Your task to perform on an android device: turn off notifications in google photos Image 0: 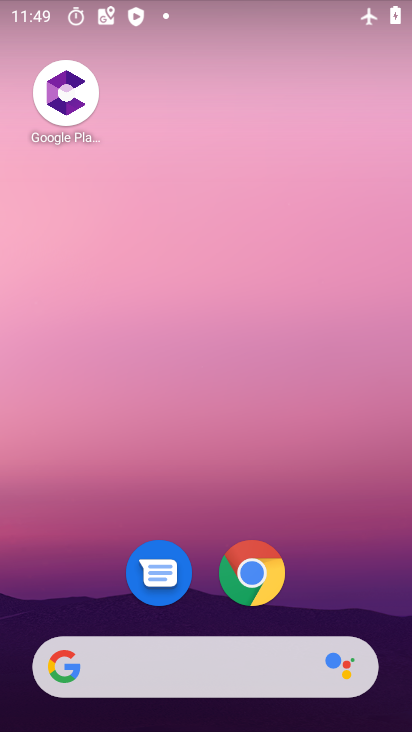
Step 0: drag from (271, 707) to (282, 172)
Your task to perform on an android device: turn off notifications in google photos Image 1: 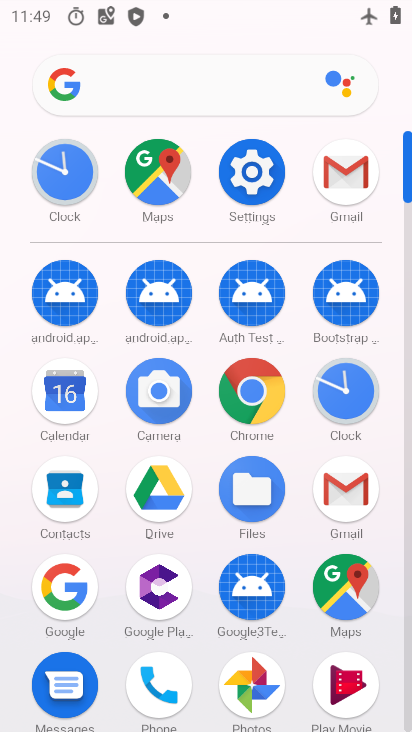
Step 1: click (250, 651)
Your task to perform on an android device: turn off notifications in google photos Image 2: 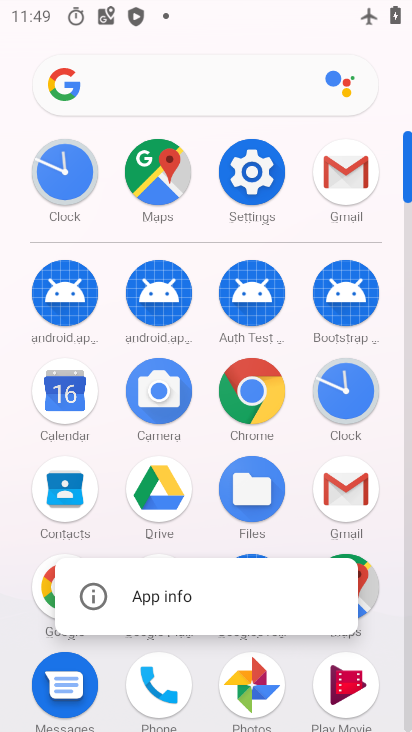
Step 2: click (199, 598)
Your task to perform on an android device: turn off notifications in google photos Image 3: 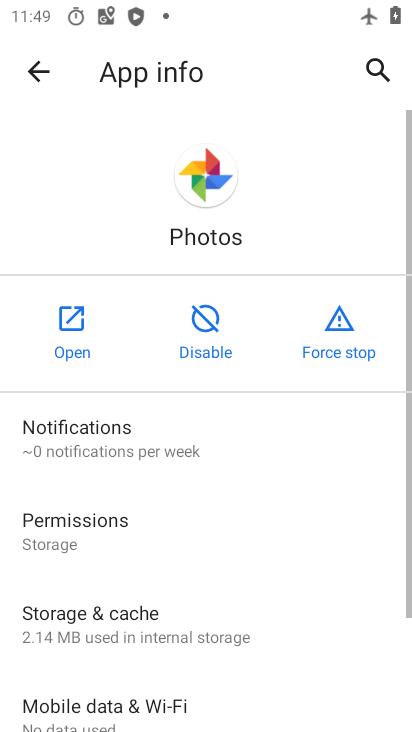
Step 3: click (149, 440)
Your task to perform on an android device: turn off notifications in google photos Image 4: 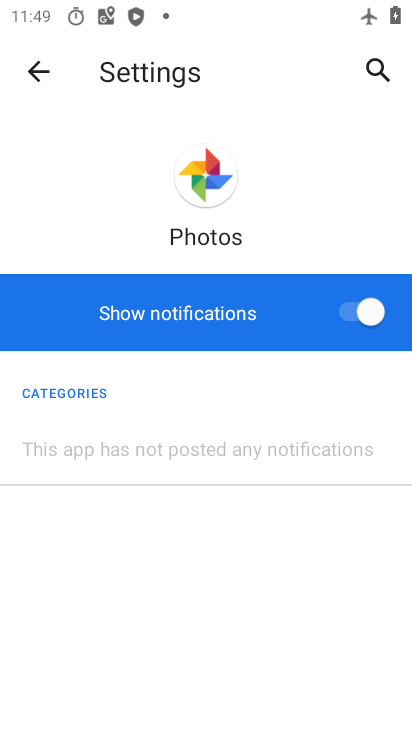
Step 4: click (361, 320)
Your task to perform on an android device: turn off notifications in google photos Image 5: 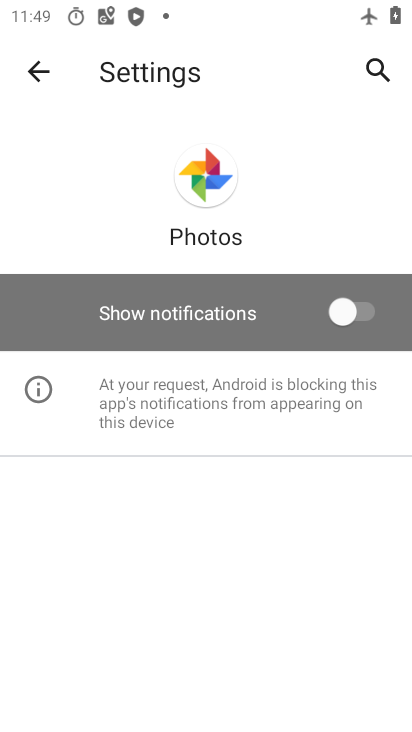
Step 5: task complete